Your task to perform on an android device: turn on data saver in the chrome app Image 0: 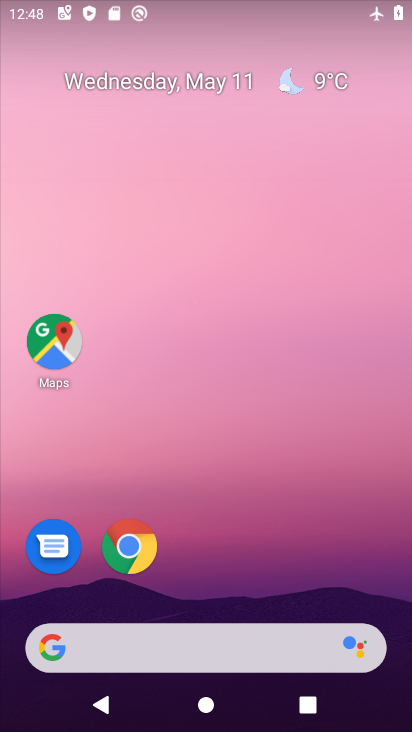
Step 0: drag from (266, 639) to (220, 0)
Your task to perform on an android device: turn on data saver in the chrome app Image 1: 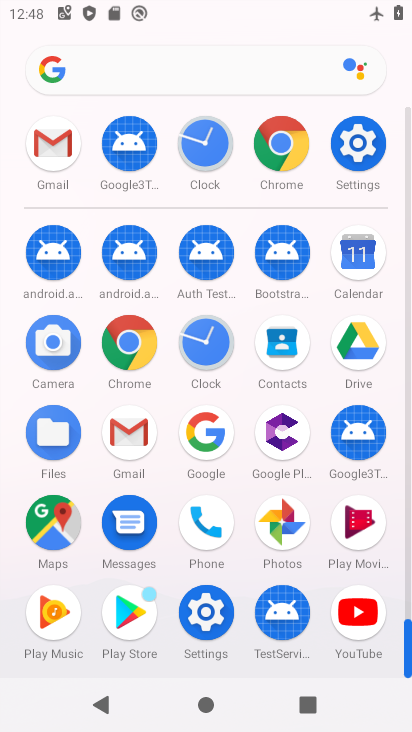
Step 1: click (132, 348)
Your task to perform on an android device: turn on data saver in the chrome app Image 2: 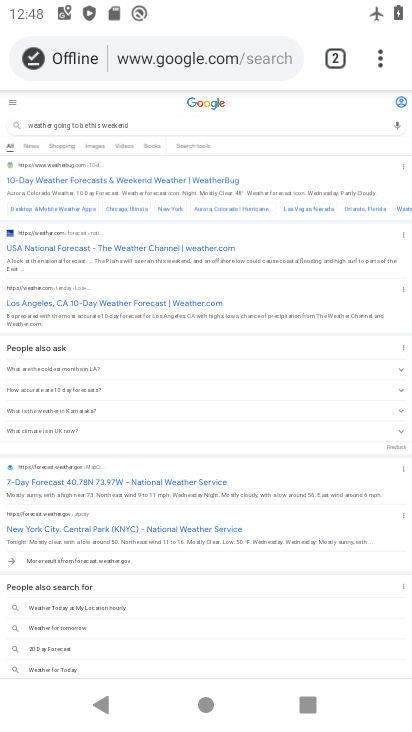
Step 2: click (380, 59)
Your task to perform on an android device: turn on data saver in the chrome app Image 3: 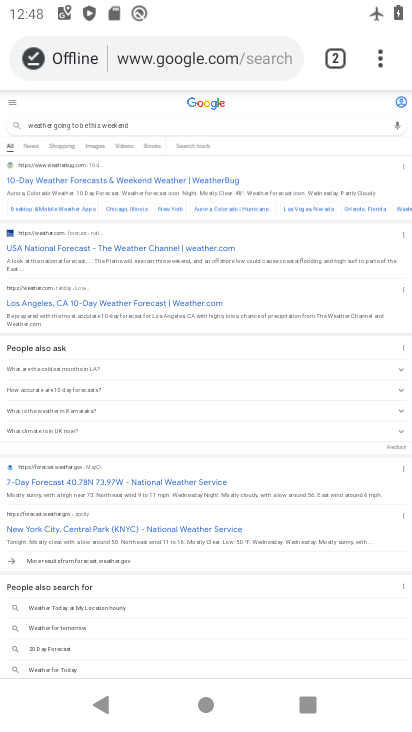
Step 3: click (380, 59)
Your task to perform on an android device: turn on data saver in the chrome app Image 4: 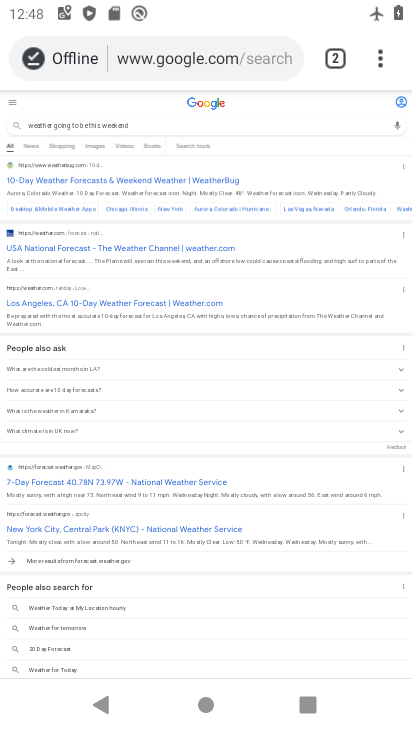
Step 4: click (380, 59)
Your task to perform on an android device: turn on data saver in the chrome app Image 5: 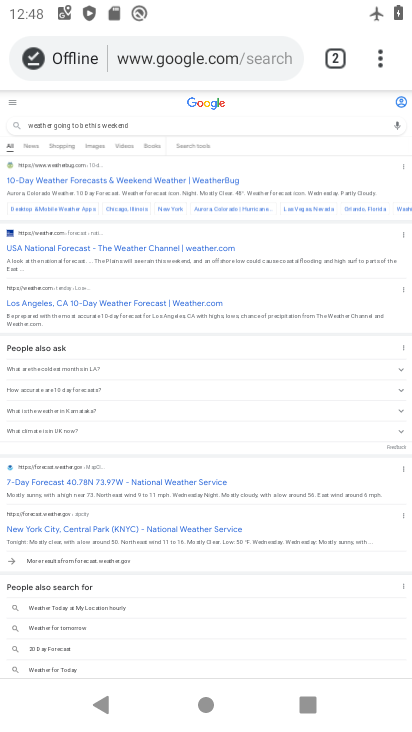
Step 5: click (388, 58)
Your task to perform on an android device: turn on data saver in the chrome app Image 6: 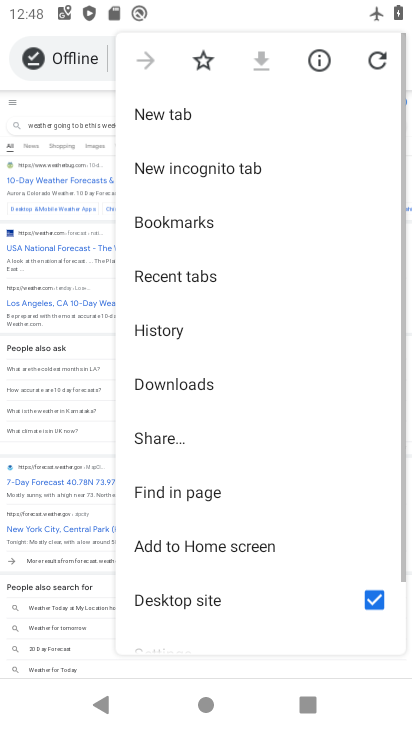
Step 6: drag from (285, 554) to (285, 127)
Your task to perform on an android device: turn on data saver in the chrome app Image 7: 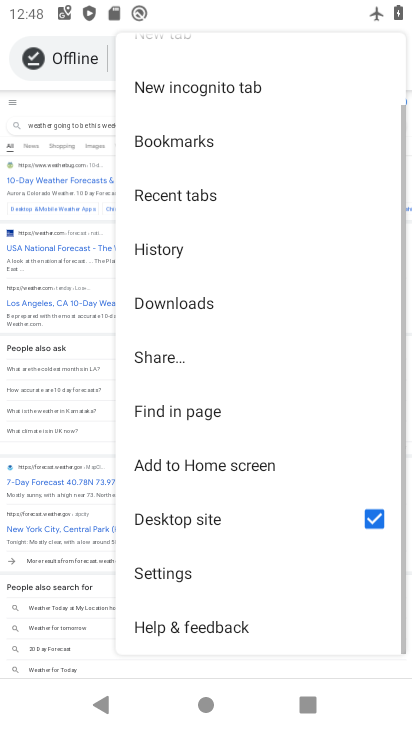
Step 7: click (233, 580)
Your task to perform on an android device: turn on data saver in the chrome app Image 8: 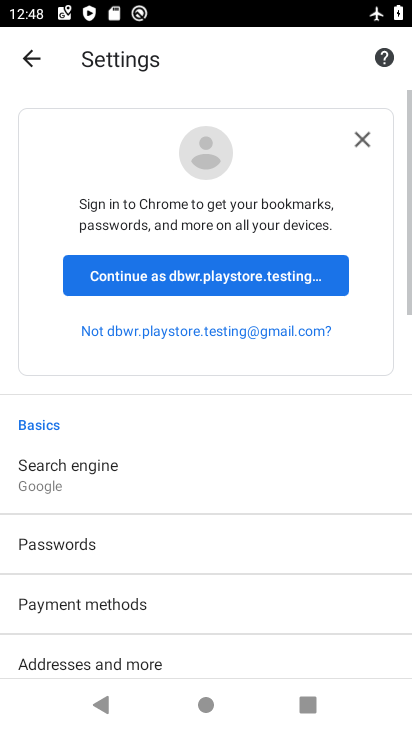
Step 8: drag from (179, 613) to (230, 24)
Your task to perform on an android device: turn on data saver in the chrome app Image 9: 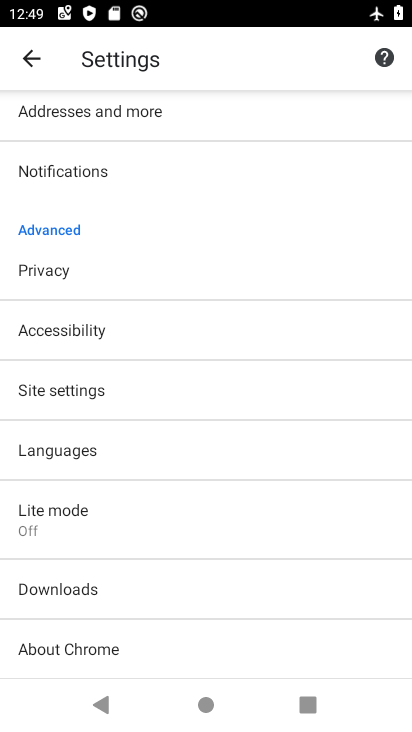
Step 9: click (207, 502)
Your task to perform on an android device: turn on data saver in the chrome app Image 10: 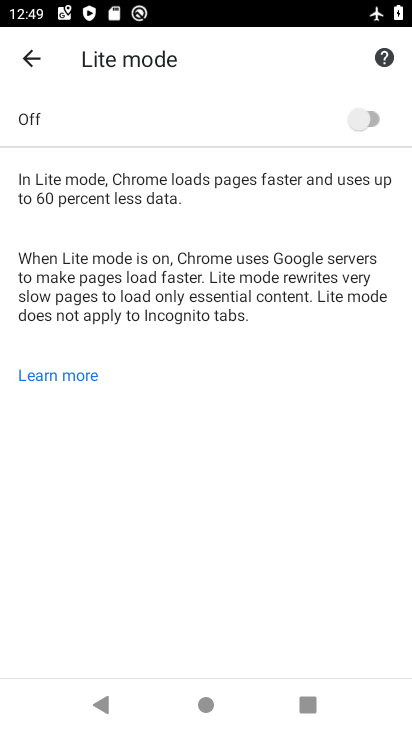
Step 10: click (376, 118)
Your task to perform on an android device: turn on data saver in the chrome app Image 11: 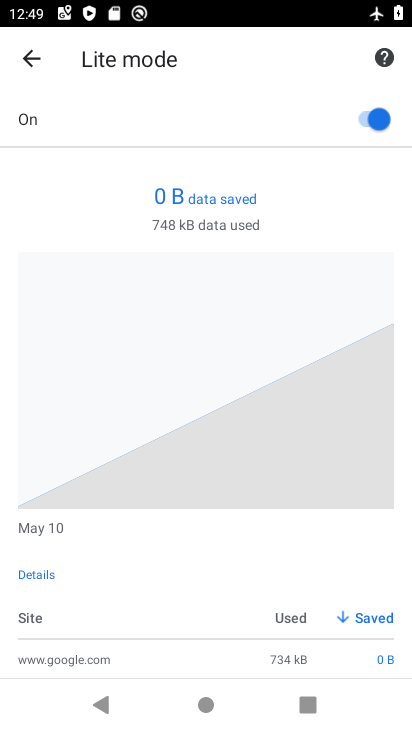
Step 11: task complete